Your task to perform on an android device: Open settings on Google Maps Image 0: 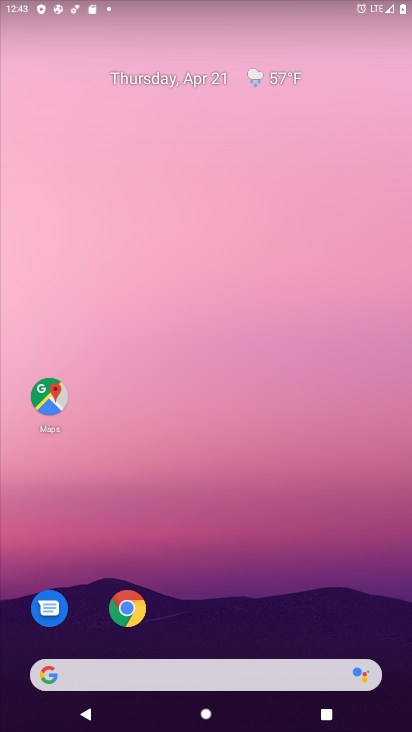
Step 0: click (228, 170)
Your task to perform on an android device: Open settings on Google Maps Image 1: 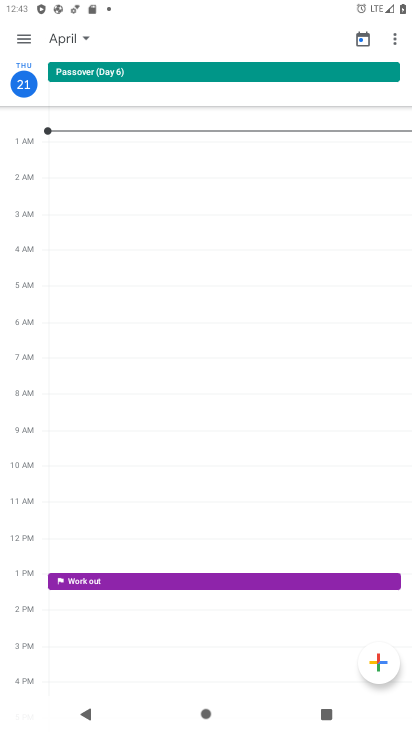
Step 1: press home button
Your task to perform on an android device: Open settings on Google Maps Image 2: 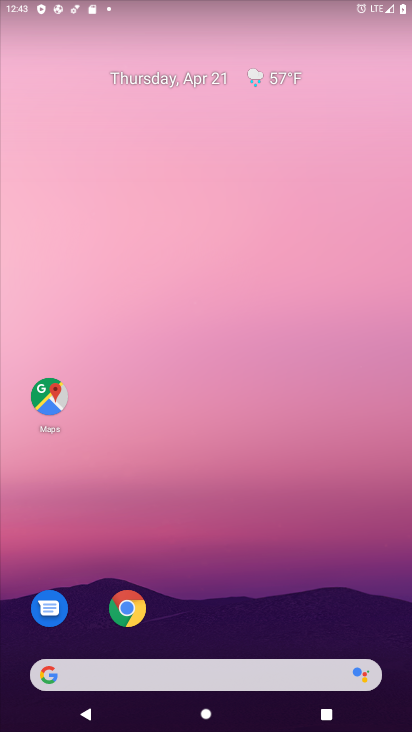
Step 2: click (48, 409)
Your task to perform on an android device: Open settings on Google Maps Image 3: 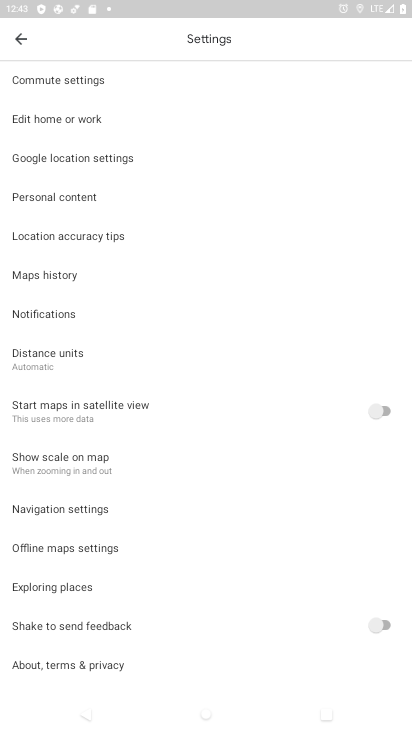
Step 3: task complete